Your task to perform on an android device: See recent photos Image 0: 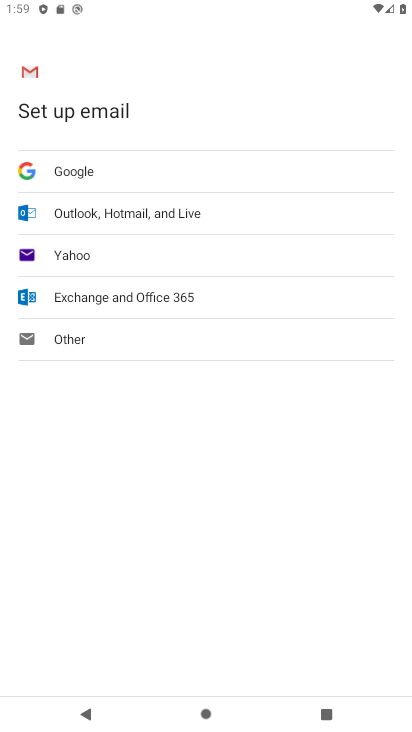
Step 0: press back button
Your task to perform on an android device: See recent photos Image 1: 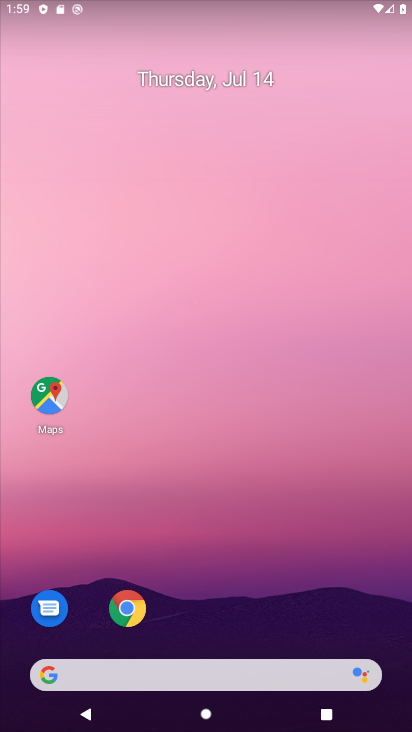
Step 1: drag from (232, 549) to (301, 16)
Your task to perform on an android device: See recent photos Image 2: 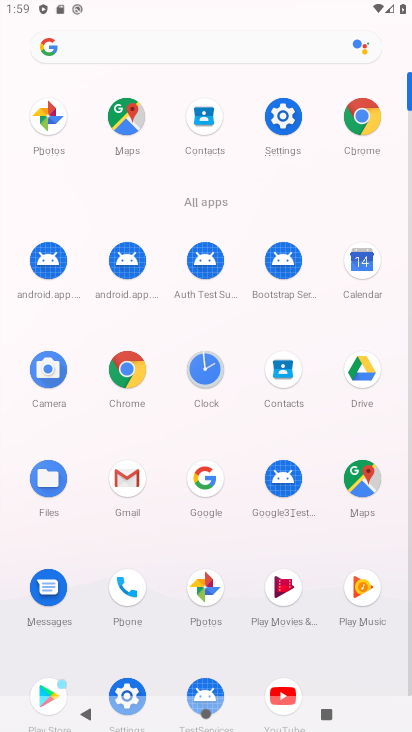
Step 2: click (217, 586)
Your task to perform on an android device: See recent photos Image 3: 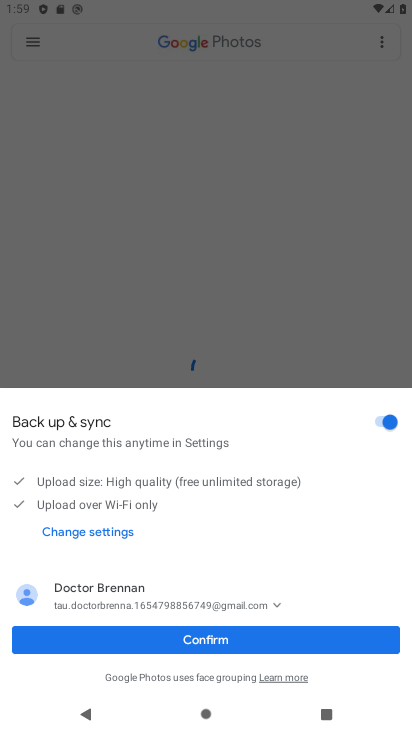
Step 3: click (197, 633)
Your task to perform on an android device: See recent photos Image 4: 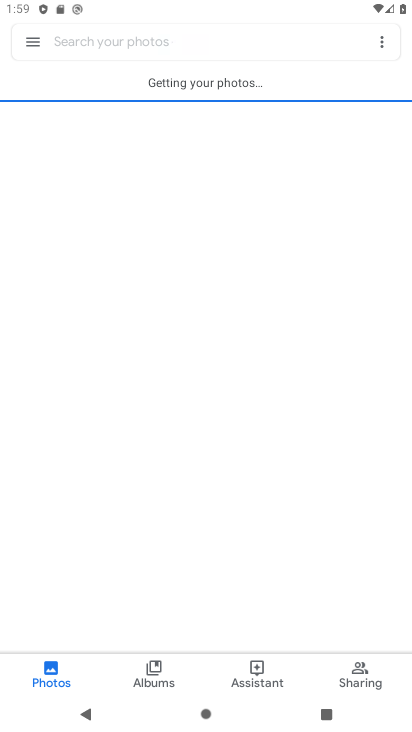
Step 4: click (57, 667)
Your task to perform on an android device: See recent photos Image 5: 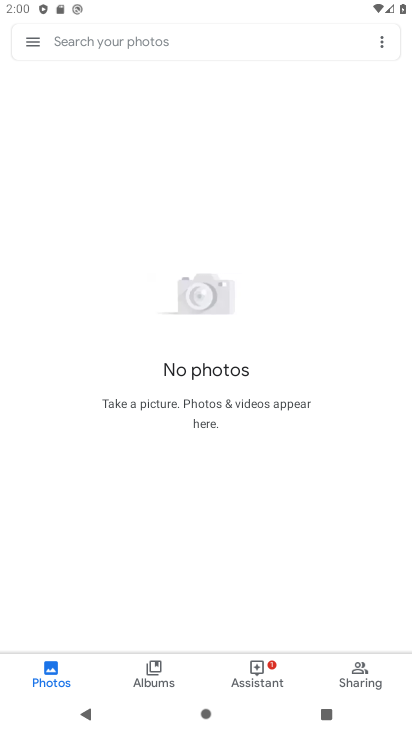
Step 5: click (61, 665)
Your task to perform on an android device: See recent photos Image 6: 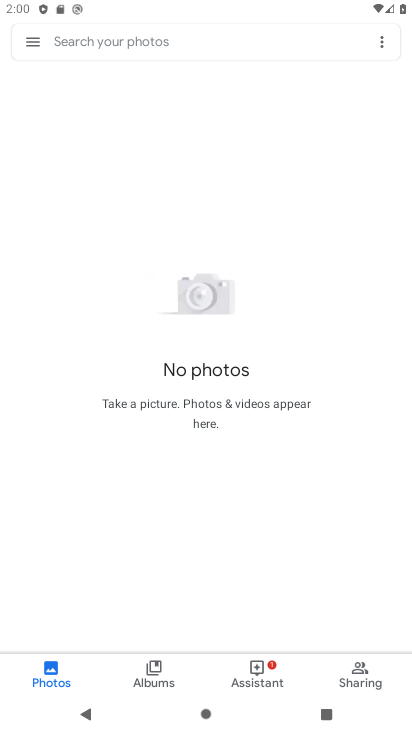
Step 6: task complete